Your task to perform on an android device: Open Maps and search for coffee Image 0: 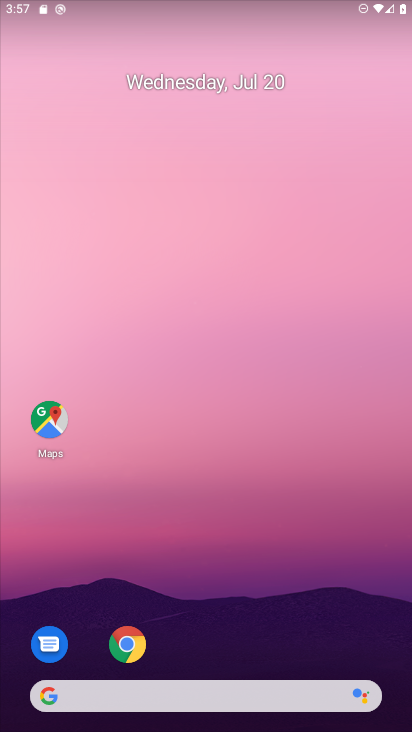
Step 0: drag from (185, 647) to (228, 64)
Your task to perform on an android device: Open Maps and search for coffee Image 1: 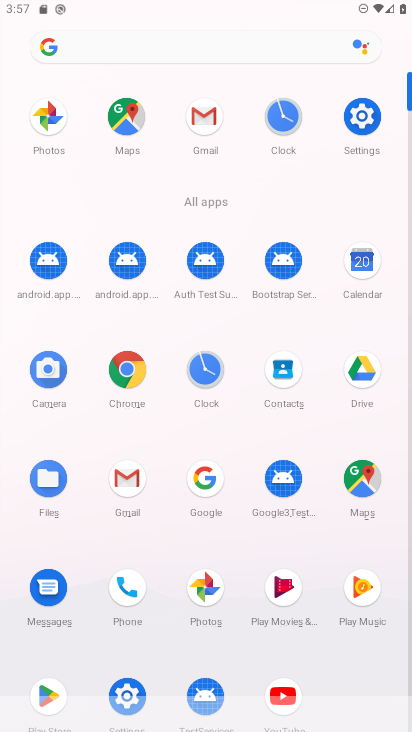
Step 1: click (119, 143)
Your task to perform on an android device: Open Maps and search for coffee Image 2: 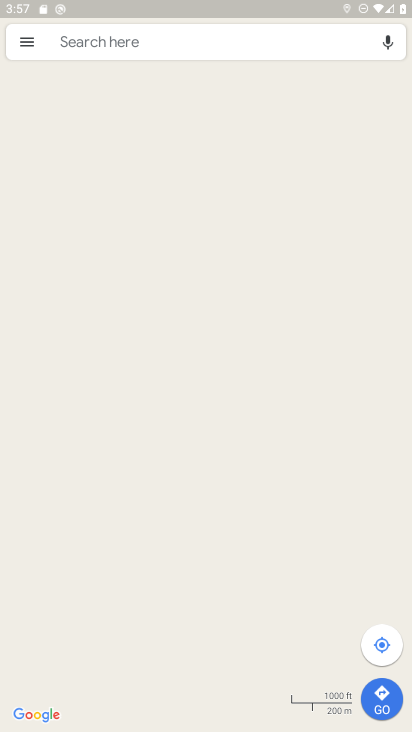
Step 2: click (139, 48)
Your task to perform on an android device: Open Maps and search for coffee Image 3: 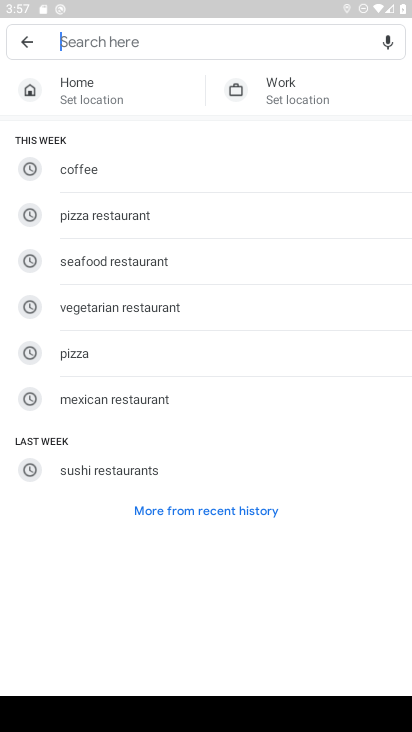
Step 3: click (96, 176)
Your task to perform on an android device: Open Maps and search for coffee Image 4: 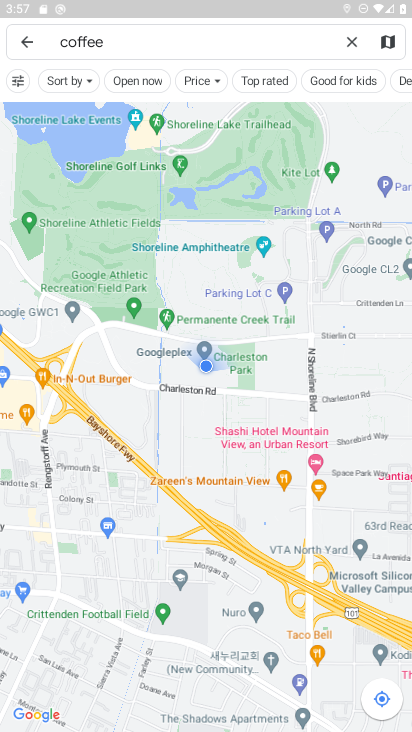
Step 4: task complete